Your task to perform on an android device: Clear all items from cart on walmart.com. Add "razer blade" to the cart on walmart.com Image 0: 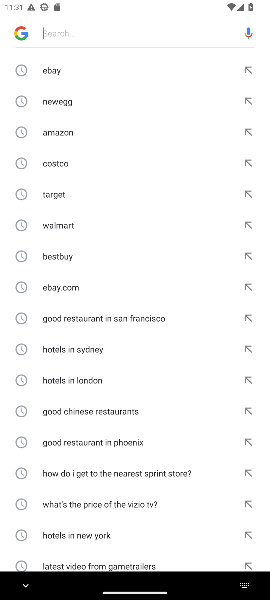
Step 0: press home button
Your task to perform on an android device: Clear all items from cart on walmart.com. Add "razer blade" to the cart on walmart.com Image 1: 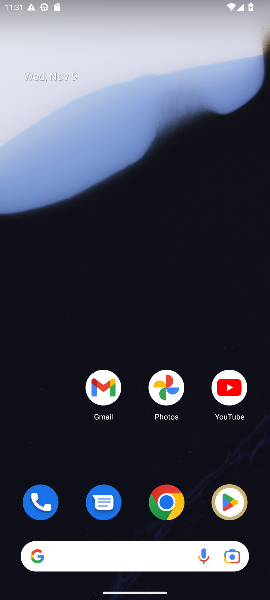
Step 1: drag from (134, 452) to (156, 7)
Your task to perform on an android device: Clear all items from cart on walmart.com. Add "razer blade" to the cart on walmart.com Image 2: 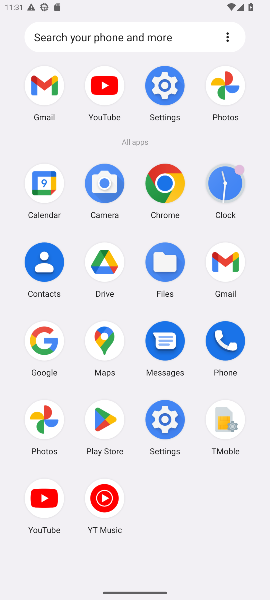
Step 2: click (165, 185)
Your task to perform on an android device: Clear all items from cart on walmart.com. Add "razer blade" to the cart on walmart.com Image 3: 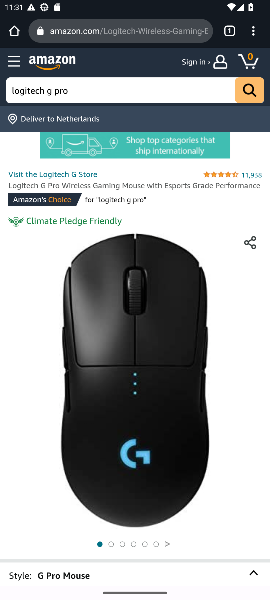
Step 3: click (87, 37)
Your task to perform on an android device: Clear all items from cart on walmart.com. Add "razer blade" to the cart on walmart.com Image 4: 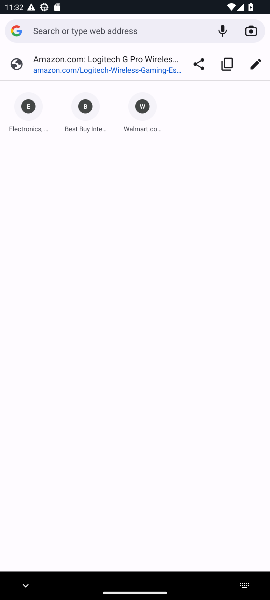
Step 4: type "walmart.com"
Your task to perform on an android device: Clear all items from cart on walmart.com. Add "razer blade" to the cart on walmart.com Image 5: 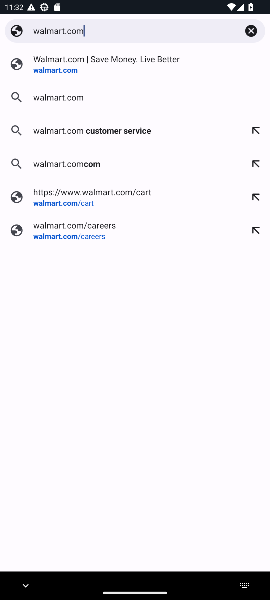
Step 5: press enter
Your task to perform on an android device: Clear all items from cart on walmart.com. Add "razer blade" to the cart on walmart.com Image 6: 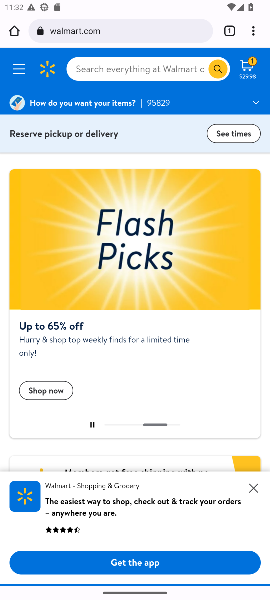
Step 6: click (250, 70)
Your task to perform on an android device: Clear all items from cart on walmart.com. Add "razer blade" to the cart on walmart.com Image 7: 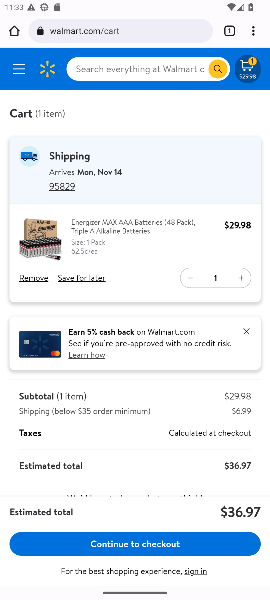
Step 7: drag from (172, 465) to (183, 279)
Your task to perform on an android device: Clear all items from cart on walmart.com. Add "razer blade" to the cart on walmart.com Image 8: 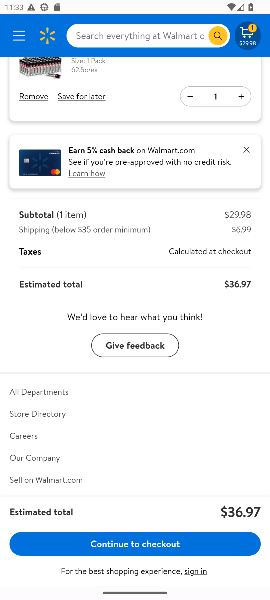
Step 8: click (251, 148)
Your task to perform on an android device: Clear all items from cart on walmart.com. Add "razer blade" to the cart on walmart.com Image 9: 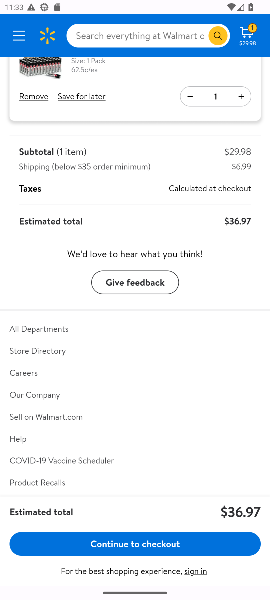
Step 9: drag from (169, 137) to (185, 434)
Your task to perform on an android device: Clear all items from cart on walmart.com. Add "razer blade" to the cart on walmart.com Image 10: 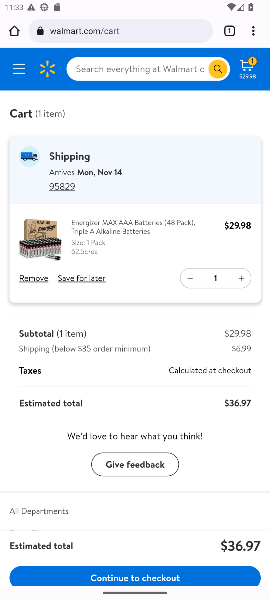
Step 10: drag from (198, 182) to (195, 267)
Your task to perform on an android device: Clear all items from cart on walmart.com. Add "razer blade" to the cart on walmart.com Image 11: 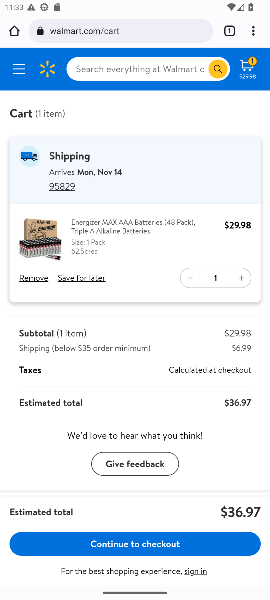
Step 11: click (34, 278)
Your task to perform on an android device: Clear all items from cart on walmart.com. Add "razer blade" to the cart on walmart.com Image 12: 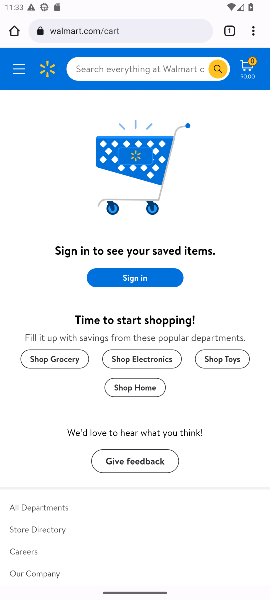
Step 12: click (152, 65)
Your task to perform on an android device: Clear all items from cart on walmart.com. Add "razer blade" to the cart on walmart.com Image 13: 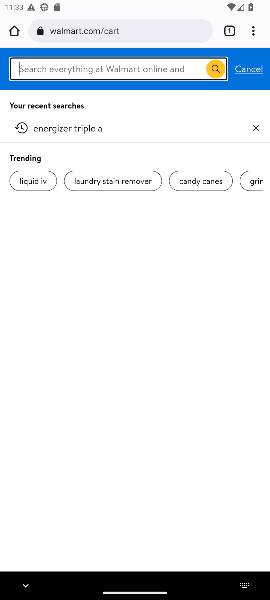
Step 13: type "razer blade"
Your task to perform on an android device: Clear all items from cart on walmart.com. Add "razer blade" to the cart on walmart.com Image 14: 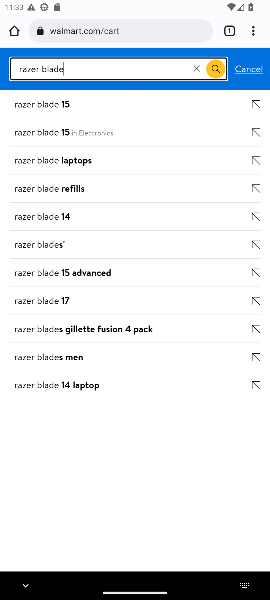
Step 14: press enter
Your task to perform on an android device: Clear all items from cart on walmart.com. Add "razer blade" to the cart on walmart.com Image 15: 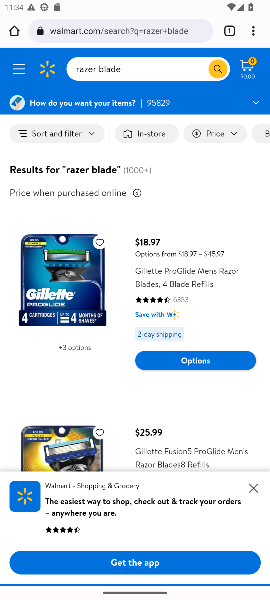
Step 15: task complete